Your task to perform on an android device: refresh tabs in the chrome app Image 0: 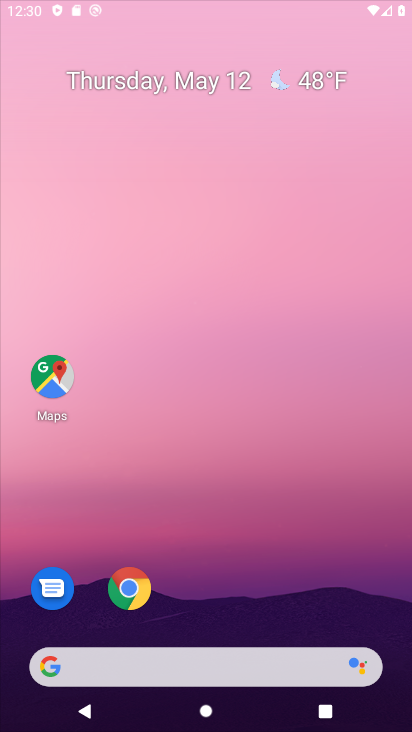
Step 0: drag from (329, 602) to (228, 275)
Your task to perform on an android device: refresh tabs in the chrome app Image 1: 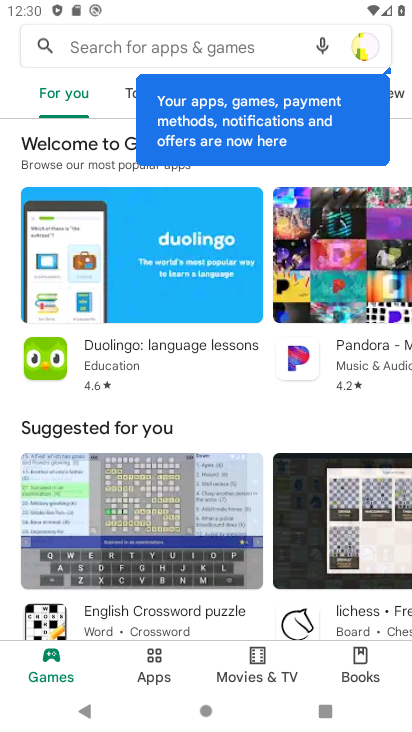
Step 1: press back button
Your task to perform on an android device: refresh tabs in the chrome app Image 2: 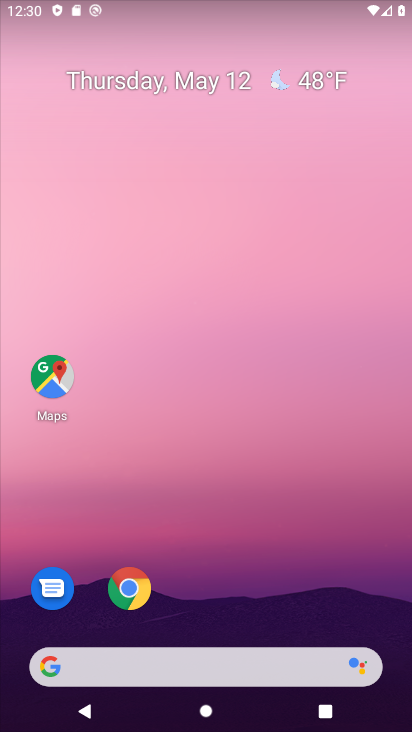
Step 2: drag from (316, 524) to (189, 131)
Your task to perform on an android device: refresh tabs in the chrome app Image 3: 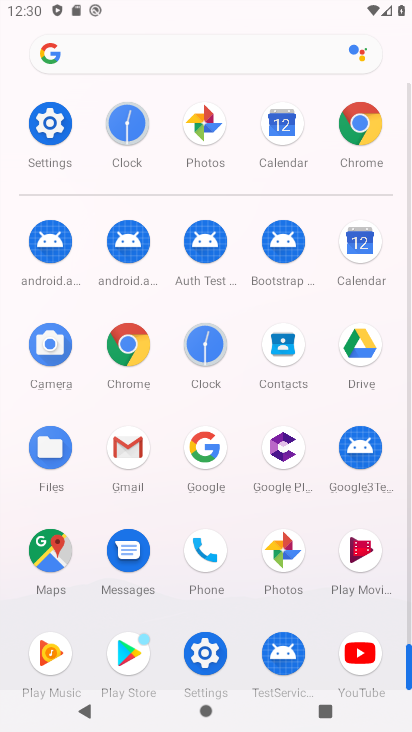
Step 3: click (368, 118)
Your task to perform on an android device: refresh tabs in the chrome app Image 4: 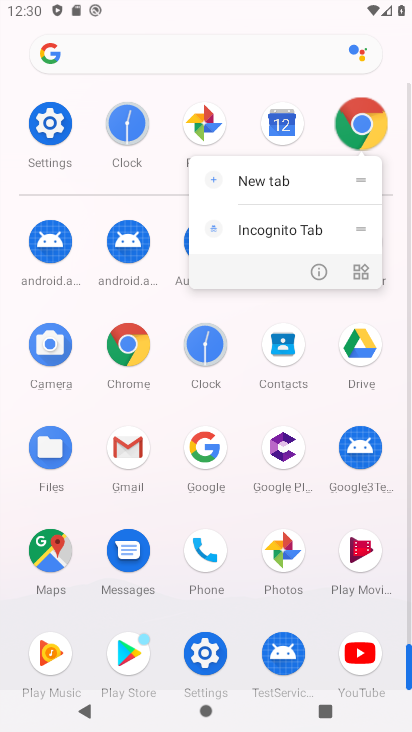
Step 4: click (367, 116)
Your task to perform on an android device: refresh tabs in the chrome app Image 5: 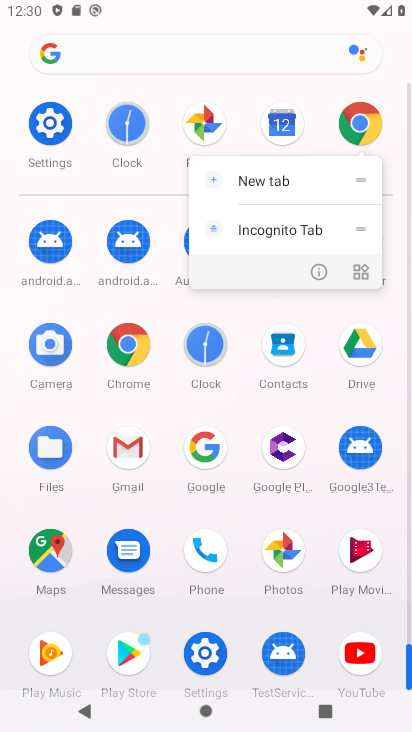
Step 5: click (367, 116)
Your task to perform on an android device: refresh tabs in the chrome app Image 6: 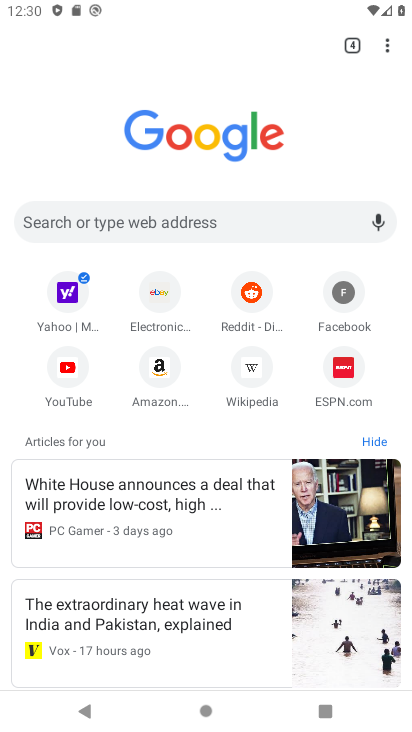
Step 6: click (384, 28)
Your task to perform on an android device: refresh tabs in the chrome app Image 7: 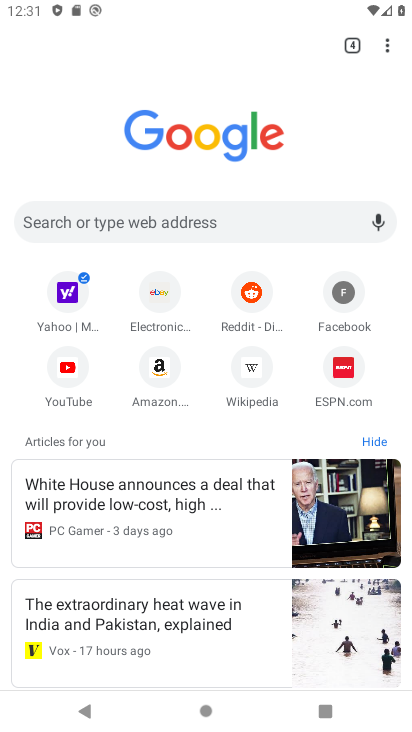
Step 7: click (383, 44)
Your task to perform on an android device: refresh tabs in the chrome app Image 8: 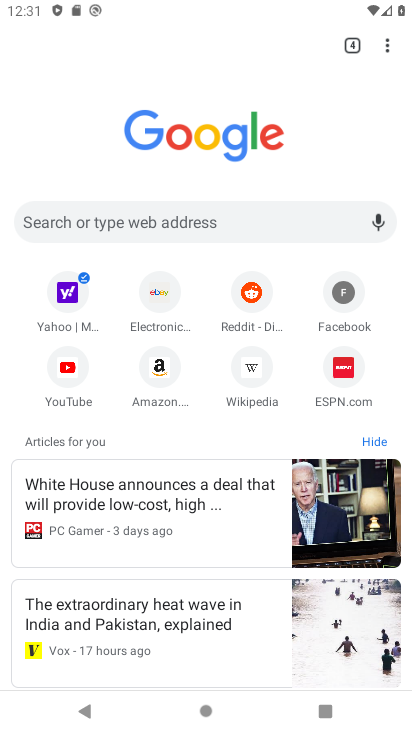
Step 8: click (386, 43)
Your task to perform on an android device: refresh tabs in the chrome app Image 9: 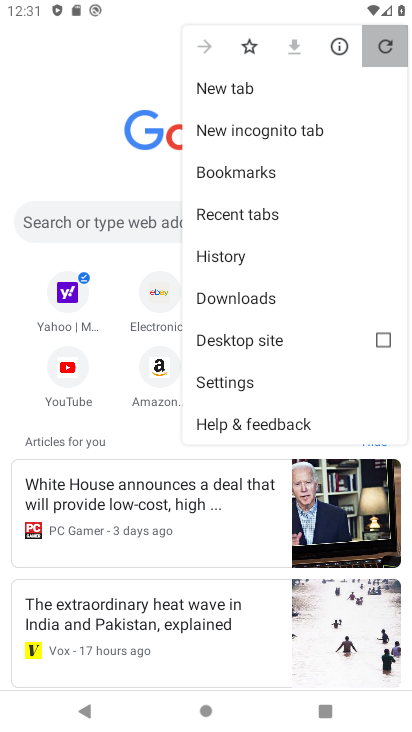
Step 9: click (380, 45)
Your task to perform on an android device: refresh tabs in the chrome app Image 10: 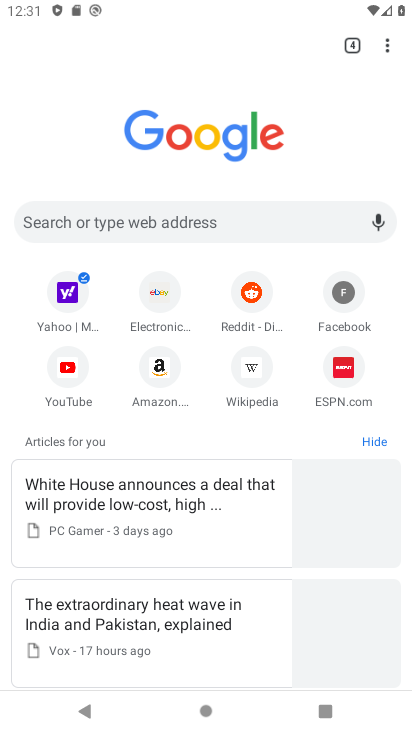
Step 10: click (380, 45)
Your task to perform on an android device: refresh tabs in the chrome app Image 11: 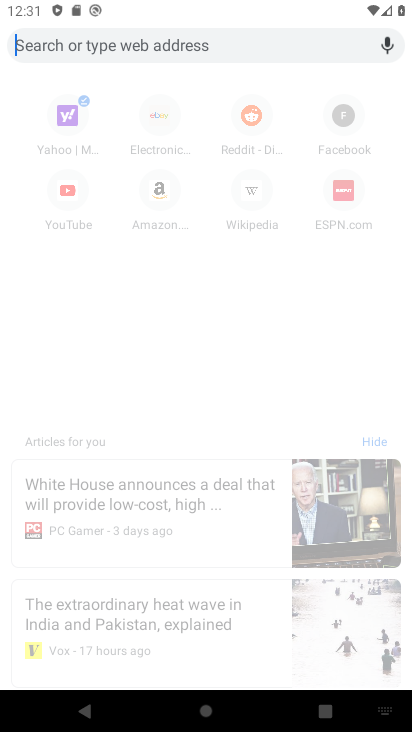
Step 11: task complete